Your task to perform on an android device: Clear all items from cart on amazon. Add razer blade to the cart on amazon Image 0: 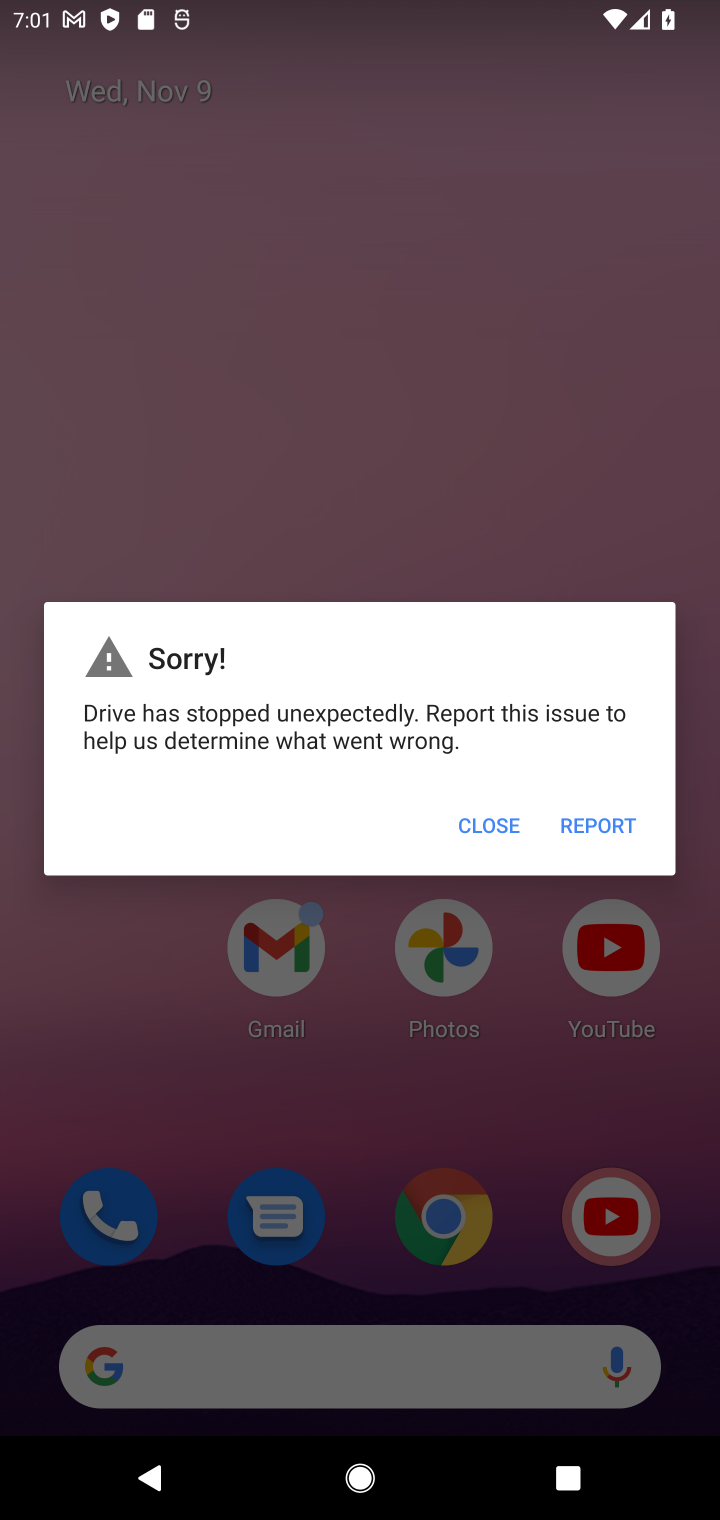
Step 0: press home button
Your task to perform on an android device: Clear all items from cart on amazon. Add razer blade to the cart on amazon Image 1: 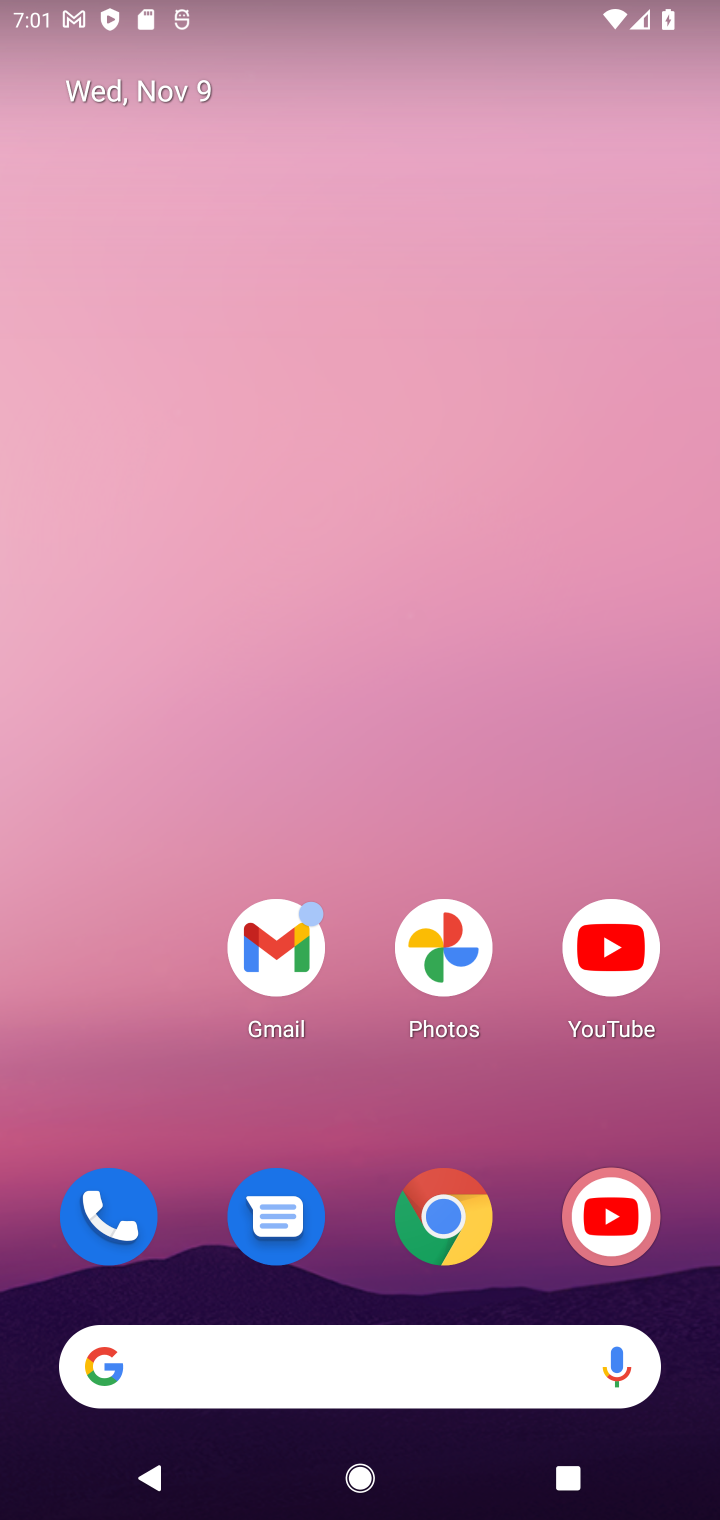
Step 1: drag from (388, 746) to (431, 117)
Your task to perform on an android device: Clear all items from cart on amazon. Add razer blade to the cart on amazon Image 2: 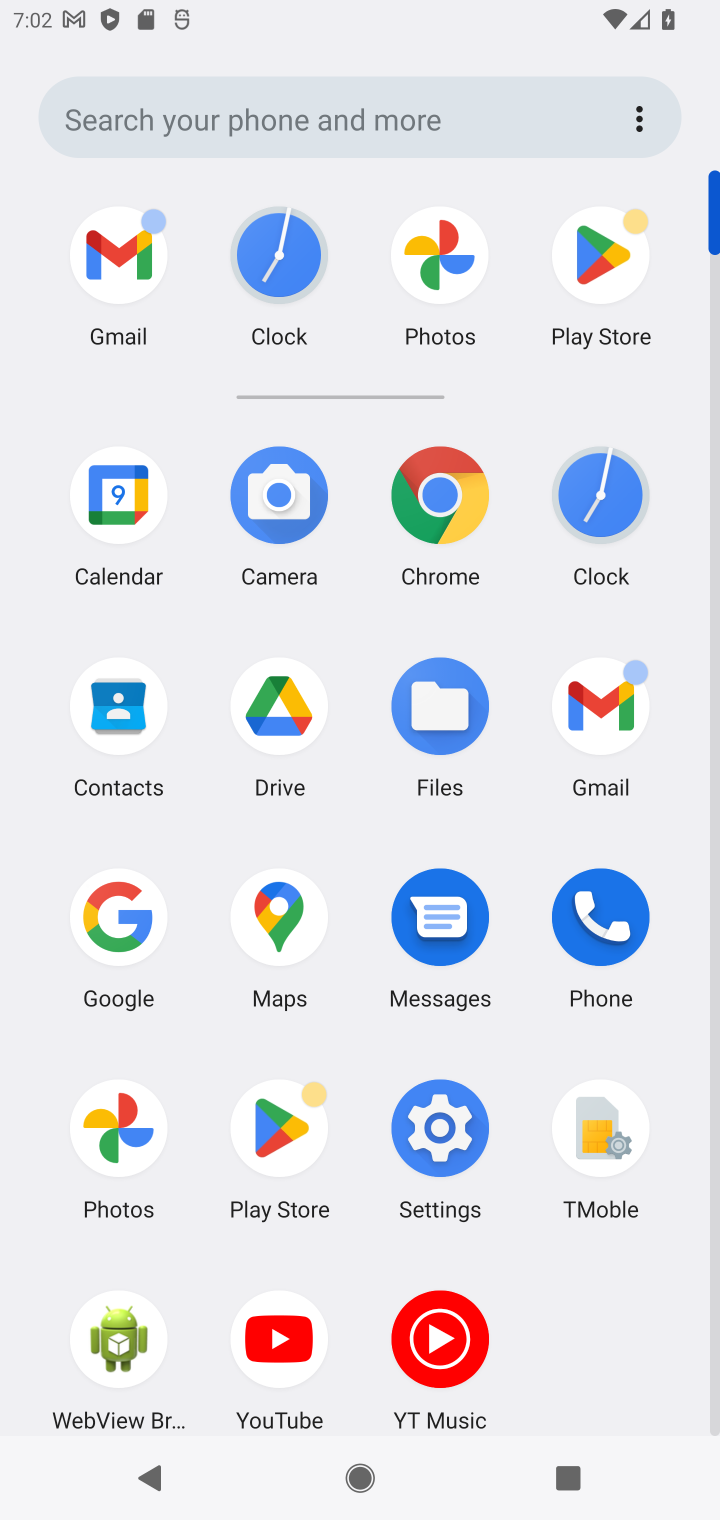
Step 2: click (434, 489)
Your task to perform on an android device: Clear all items from cart on amazon. Add razer blade to the cart on amazon Image 3: 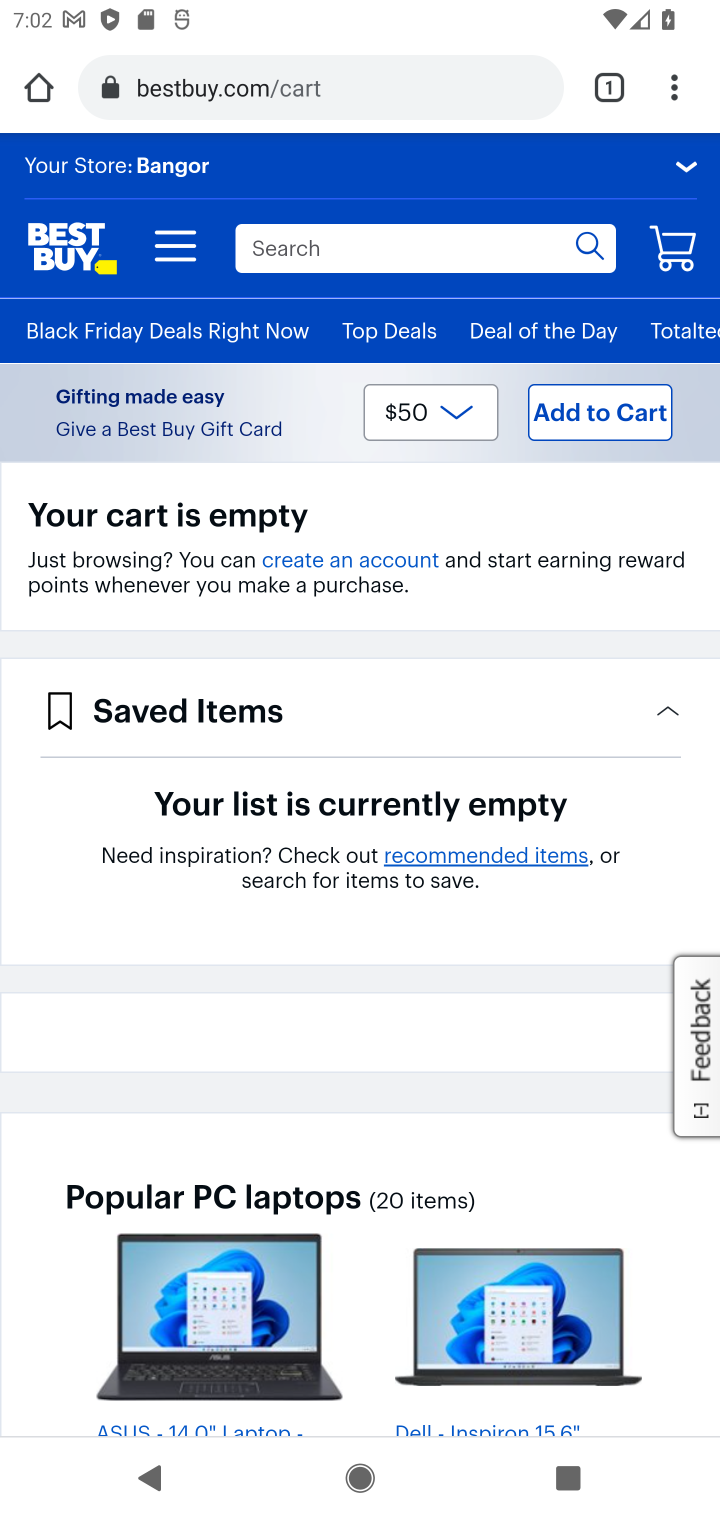
Step 3: click (440, 95)
Your task to perform on an android device: Clear all items from cart on amazon. Add razer blade to the cart on amazon Image 4: 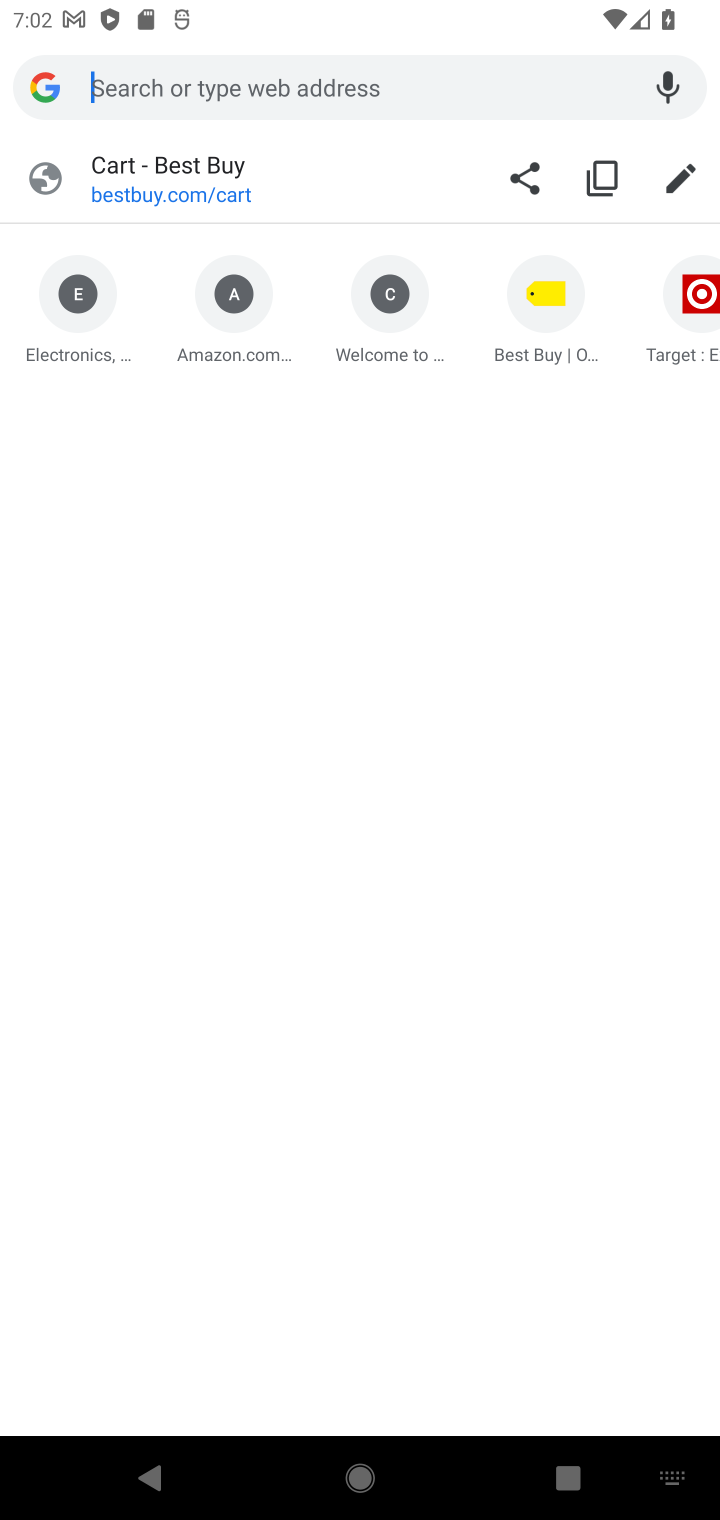
Step 4: type "amazon.com"
Your task to perform on an android device: Clear all items from cart on amazon. Add razer blade to the cart on amazon Image 5: 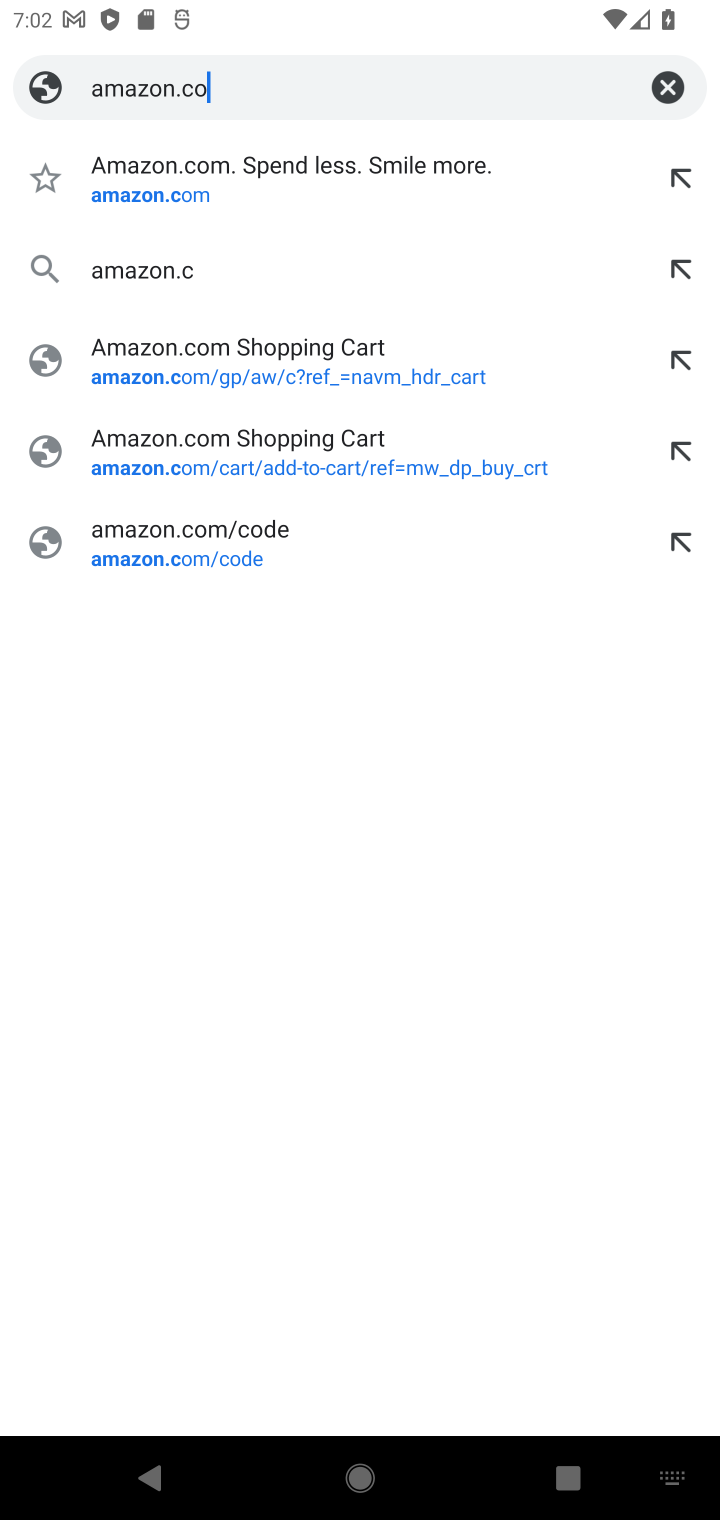
Step 5: press enter
Your task to perform on an android device: Clear all items from cart on amazon. Add razer blade to the cart on amazon Image 6: 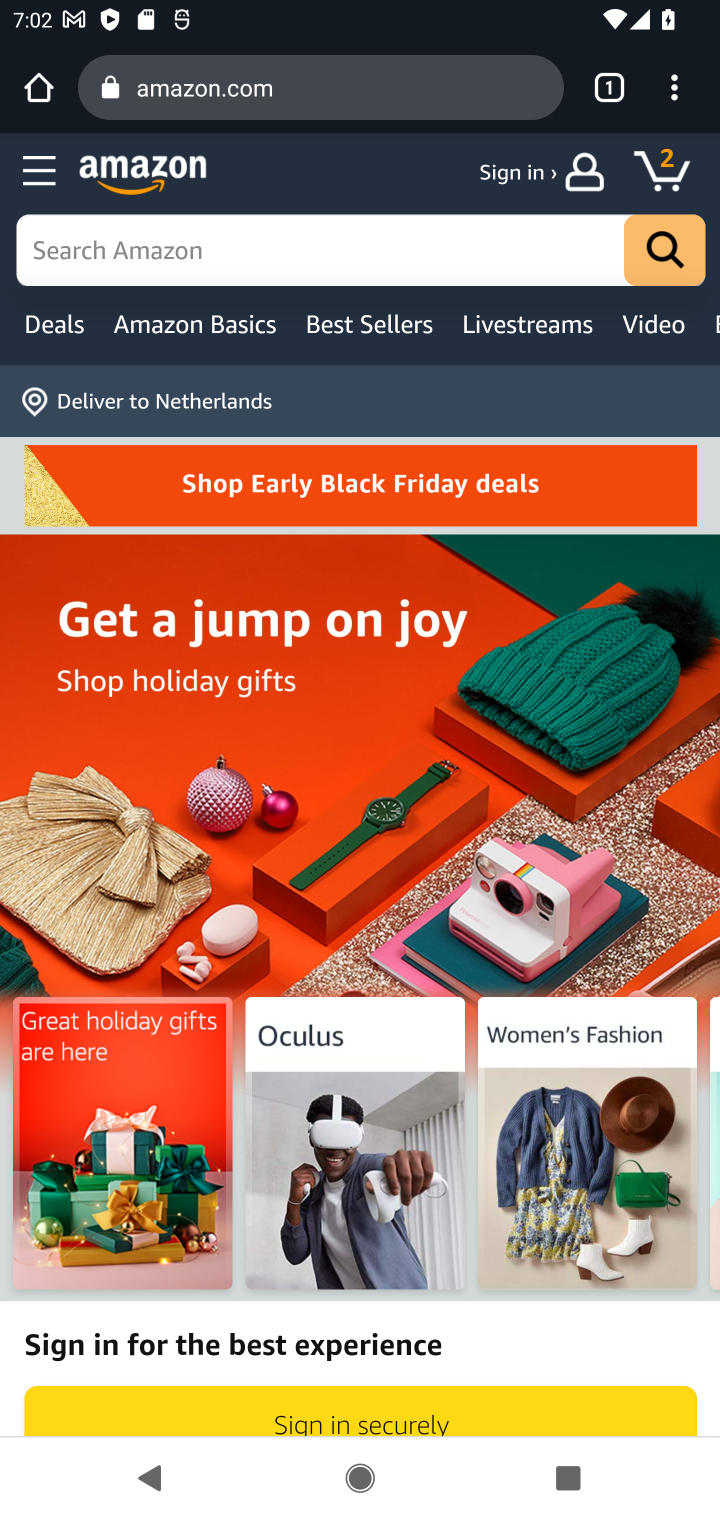
Step 6: click (668, 170)
Your task to perform on an android device: Clear all items from cart on amazon. Add razer blade to the cart on amazon Image 7: 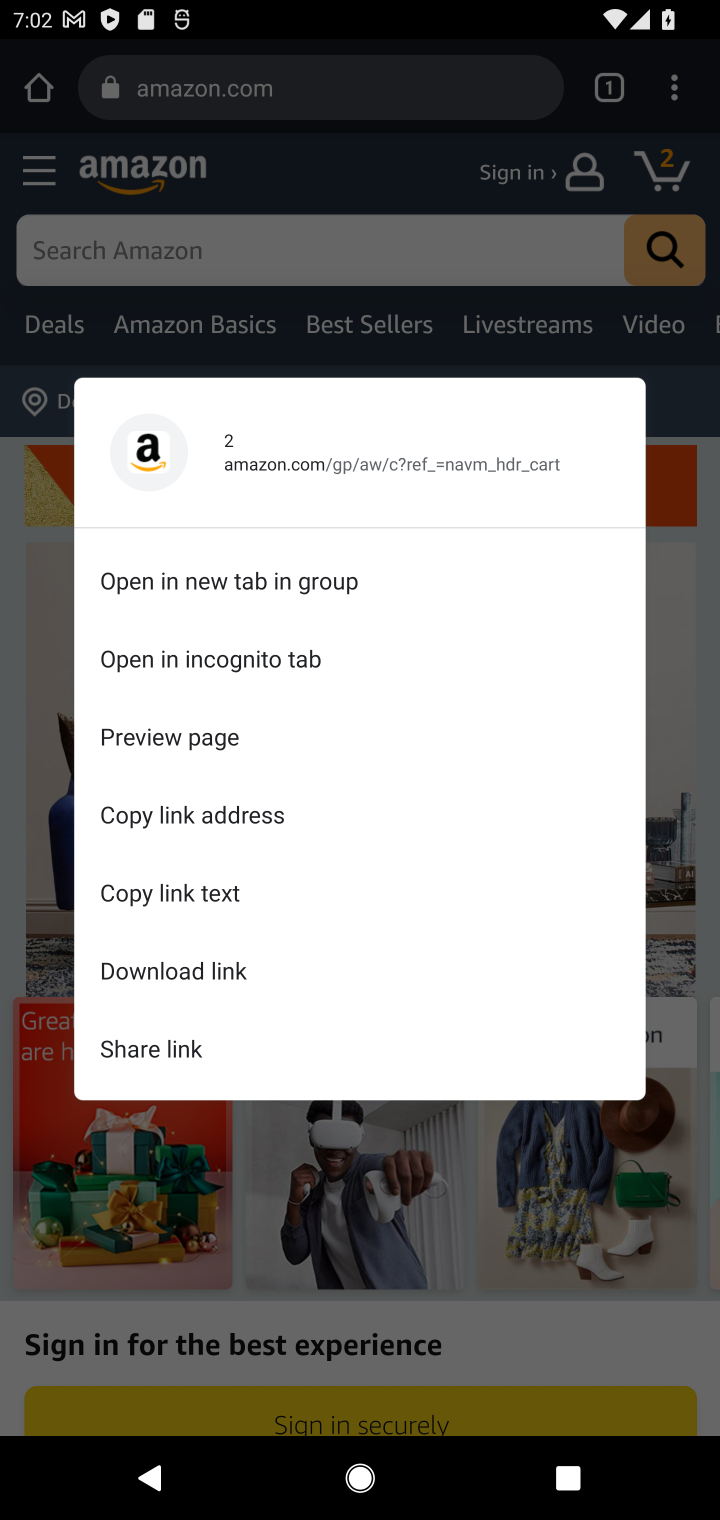
Step 7: click (684, 179)
Your task to perform on an android device: Clear all items from cart on amazon. Add razer blade to the cart on amazon Image 8: 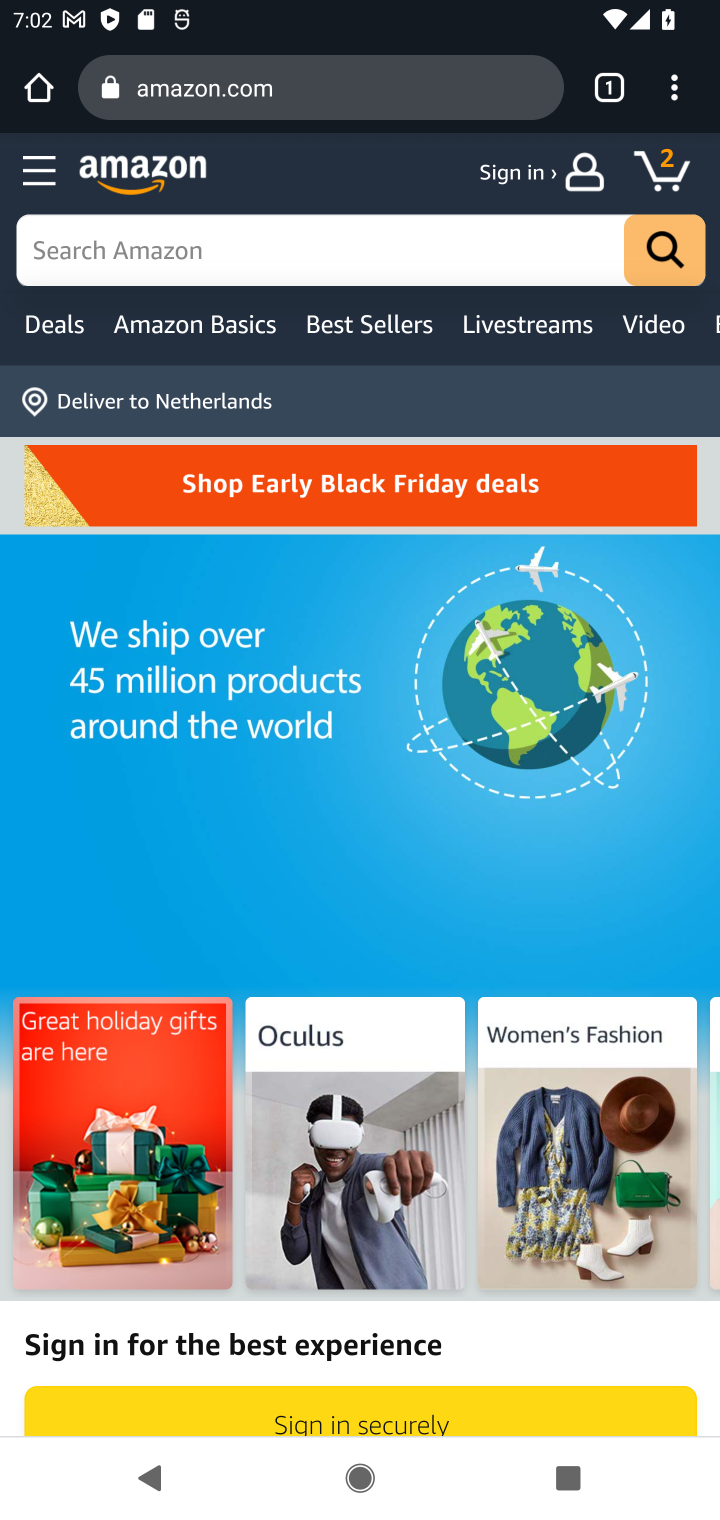
Step 8: click (684, 179)
Your task to perform on an android device: Clear all items from cart on amazon. Add razer blade to the cart on amazon Image 9: 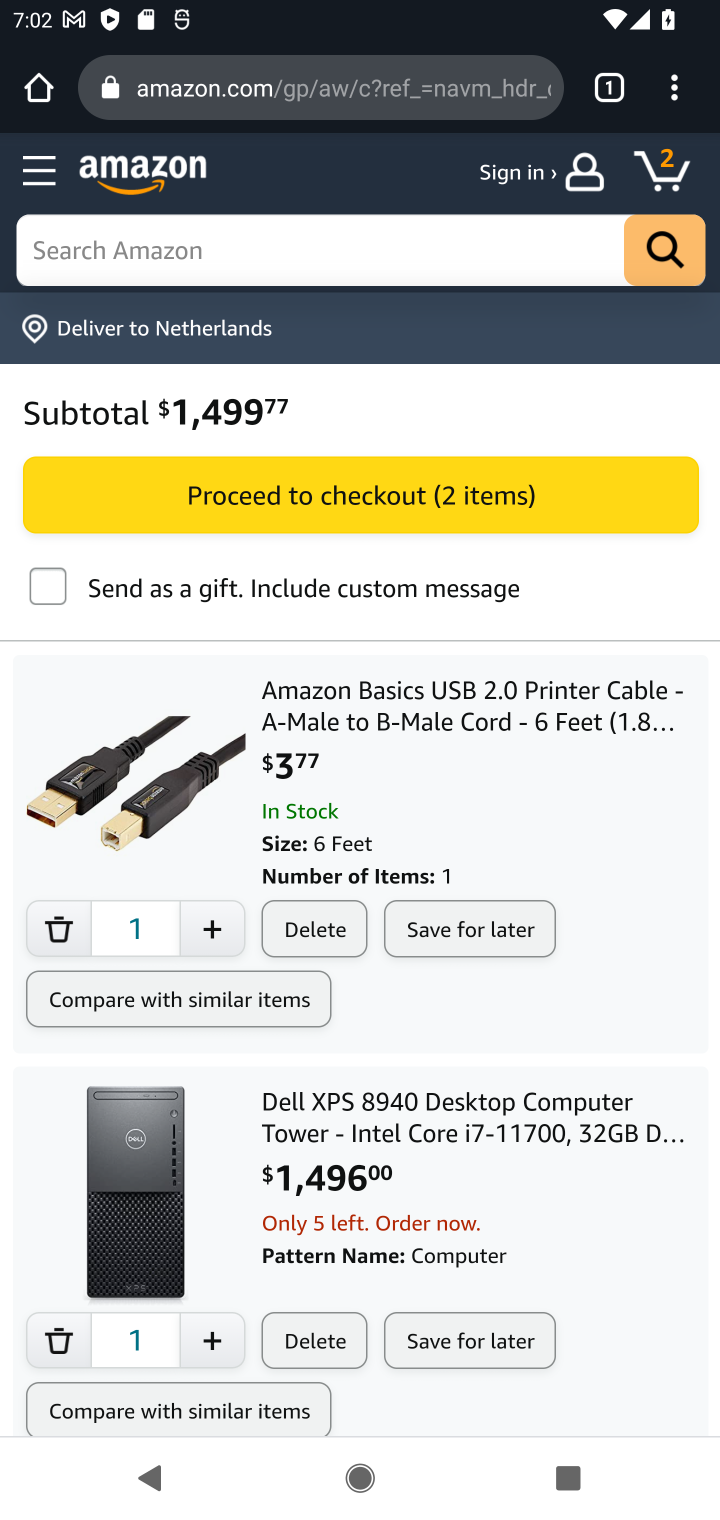
Step 9: click (287, 918)
Your task to perform on an android device: Clear all items from cart on amazon. Add razer blade to the cart on amazon Image 10: 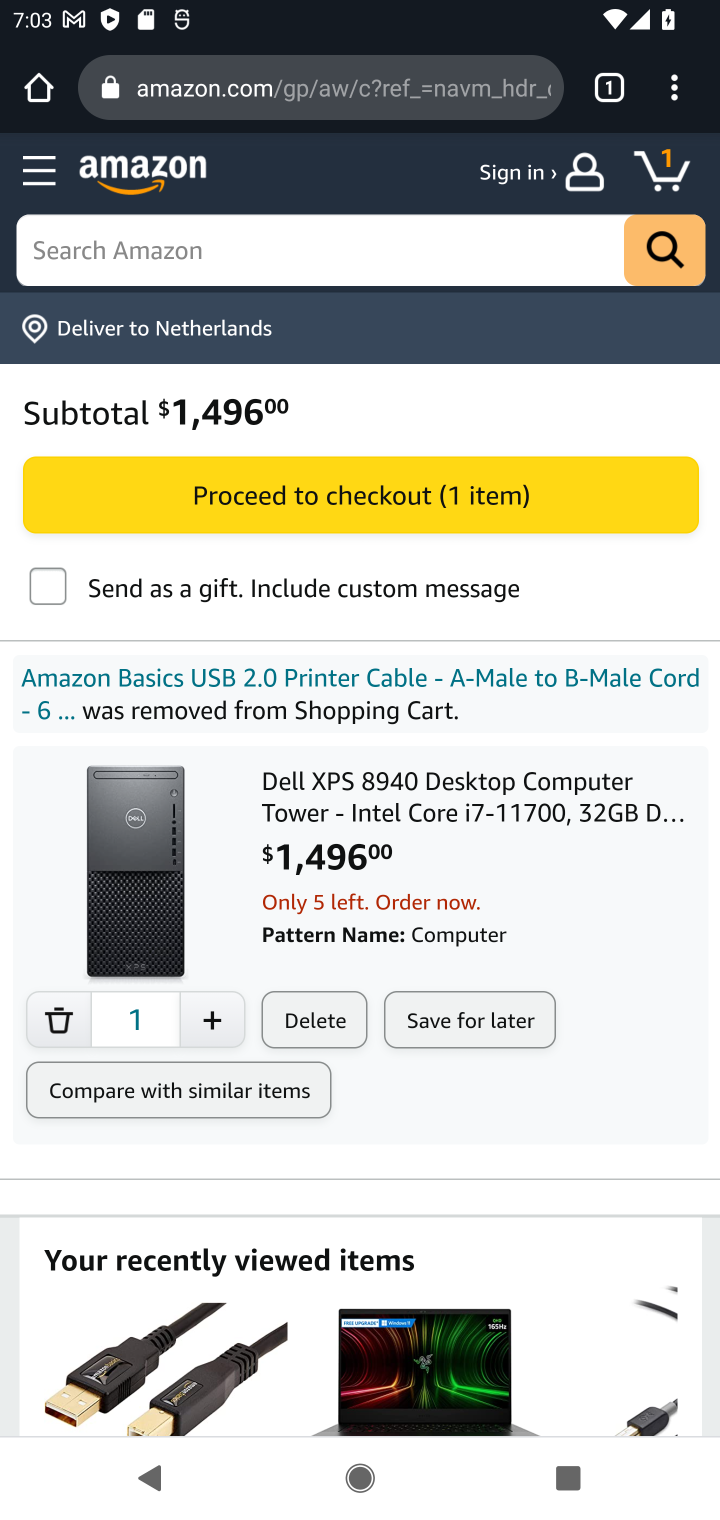
Step 10: click (305, 1031)
Your task to perform on an android device: Clear all items from cart on amazon. Add razer blade to the cart on amazon Image 11: 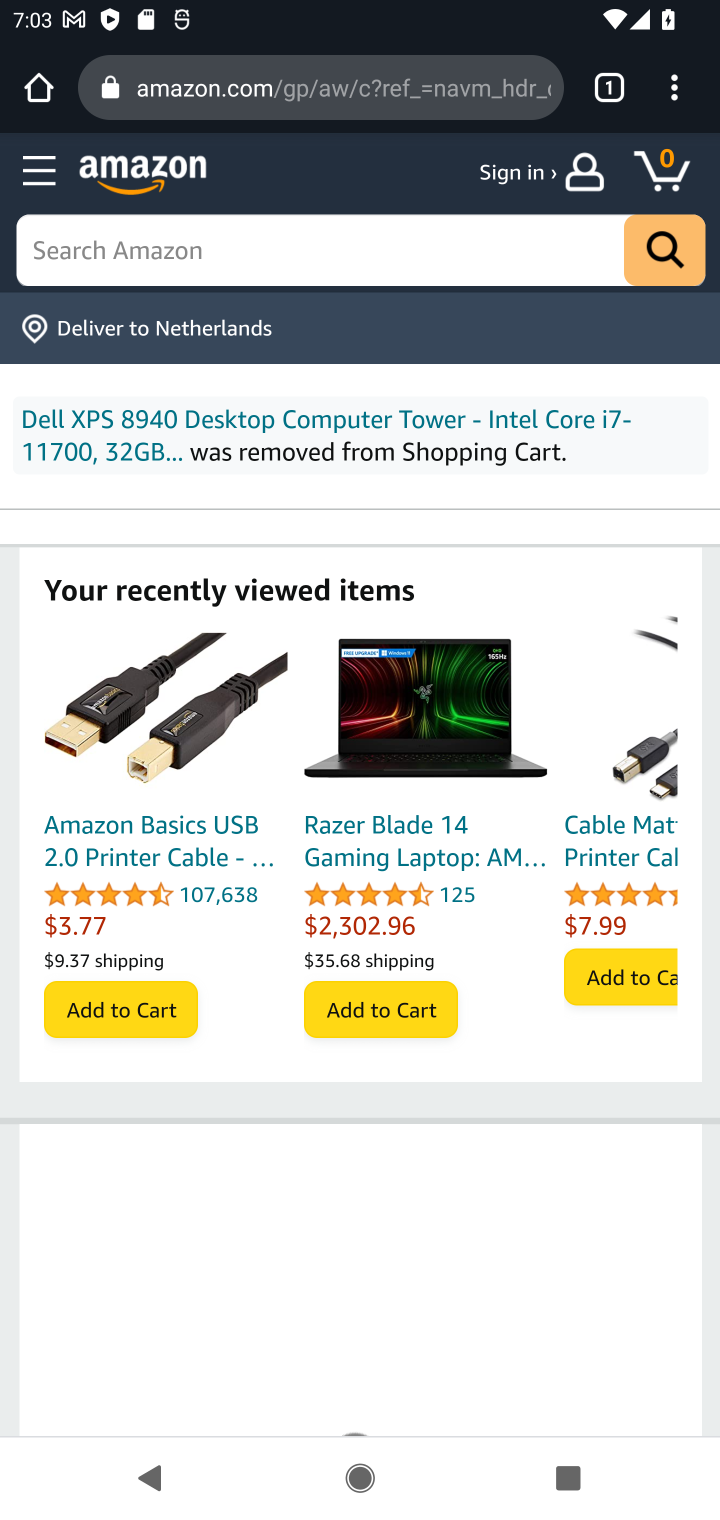
Step 11: click (443, 278)
Your task to perform on an android device: Clear all items from cart on amazon. Add razer blade to the cart on amazon Image 12: 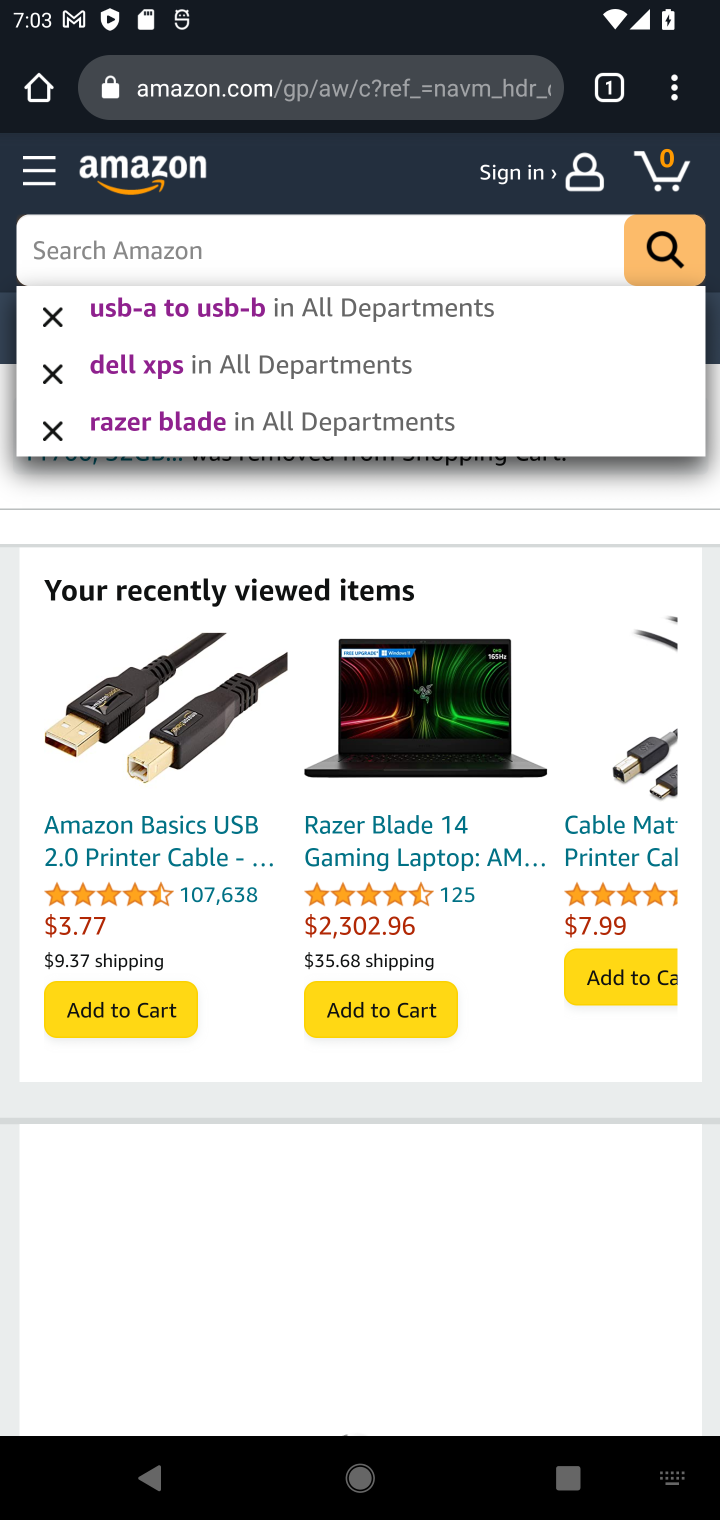
Step 12: type "razer blade"
Your task to perform on an android device: Clear all items from cart on amazon. Add razer blade to the cart on amazon Image 13: 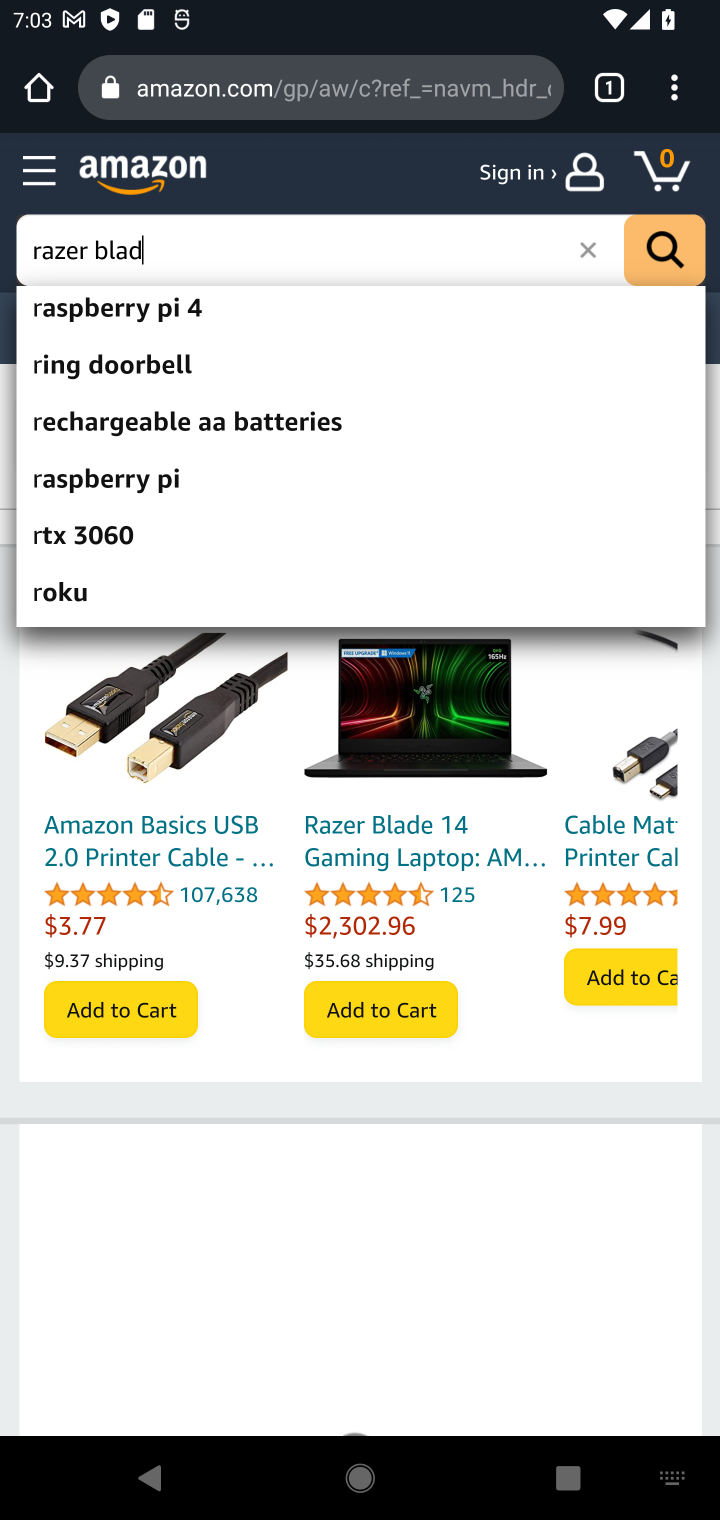
Step 13: press enter
Your task to perform on an android device: Clear all items from cart on amazon. Add razer blade to the cart on amazon Image 14: 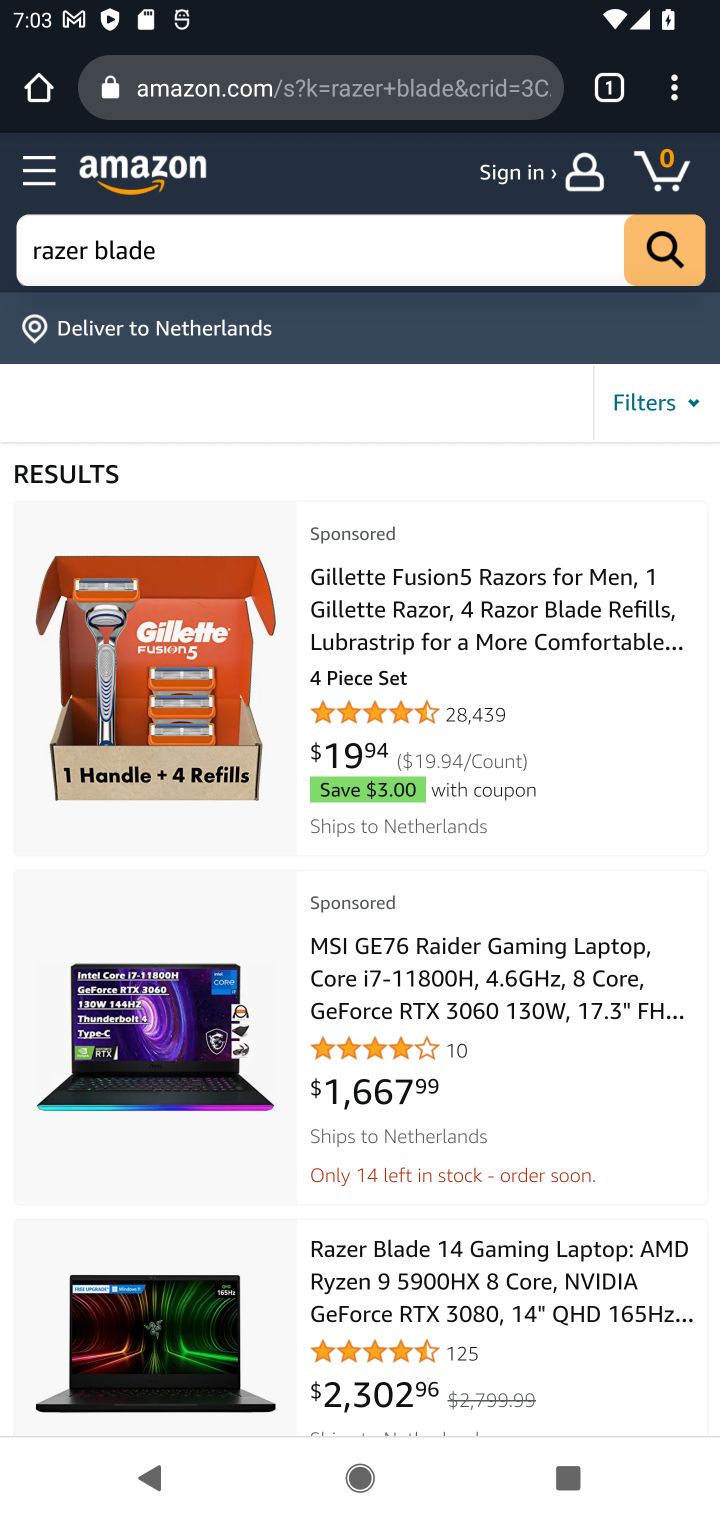
Step 14: drag from (386, 1127) to (356, 430)
Your task to perform on an android device: Clear all items from cart on amazon. Add razer blade to the cart on amazon Image 15: 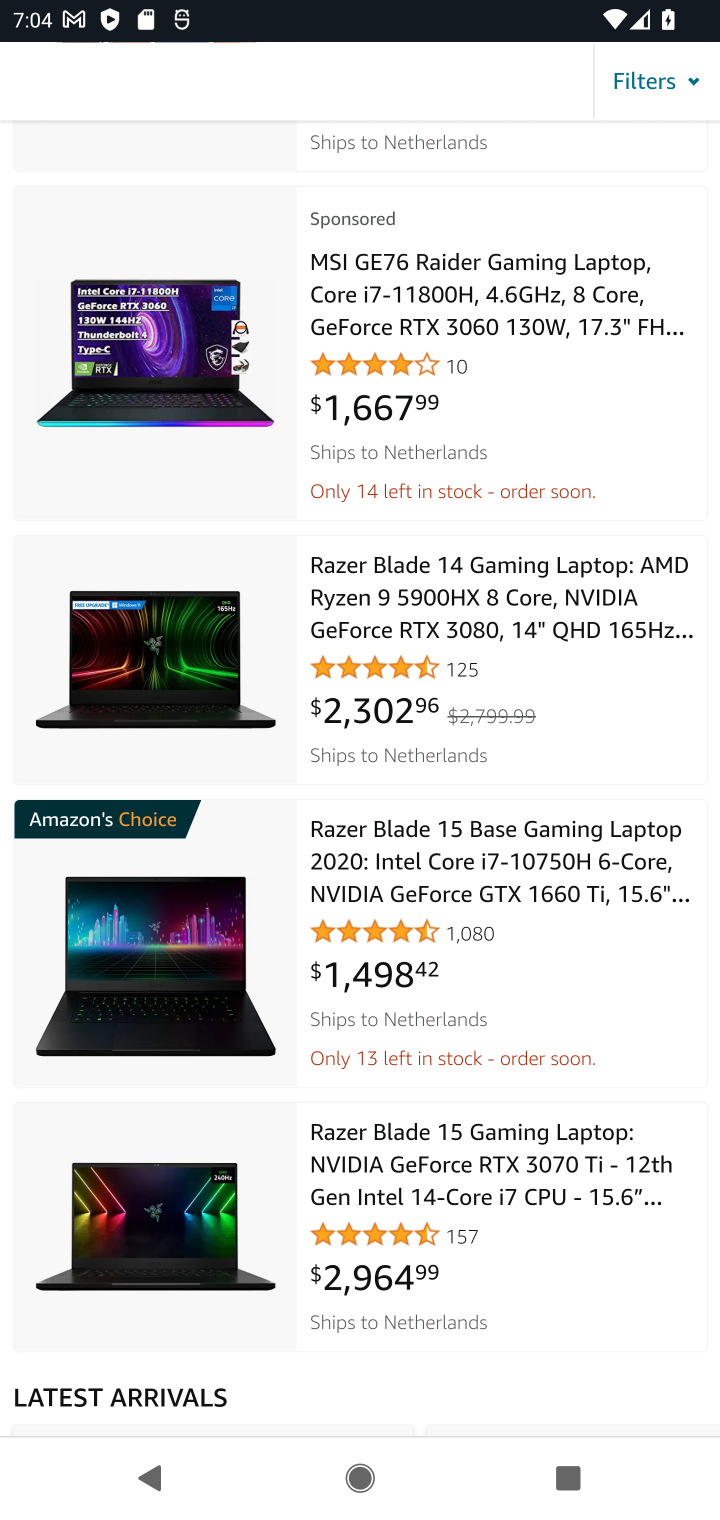
Step 15: click (486, 596)
Your task to perform on an android device: Clear all items from cart on amazon. Add razer blade to the cart on amazon Image 16: 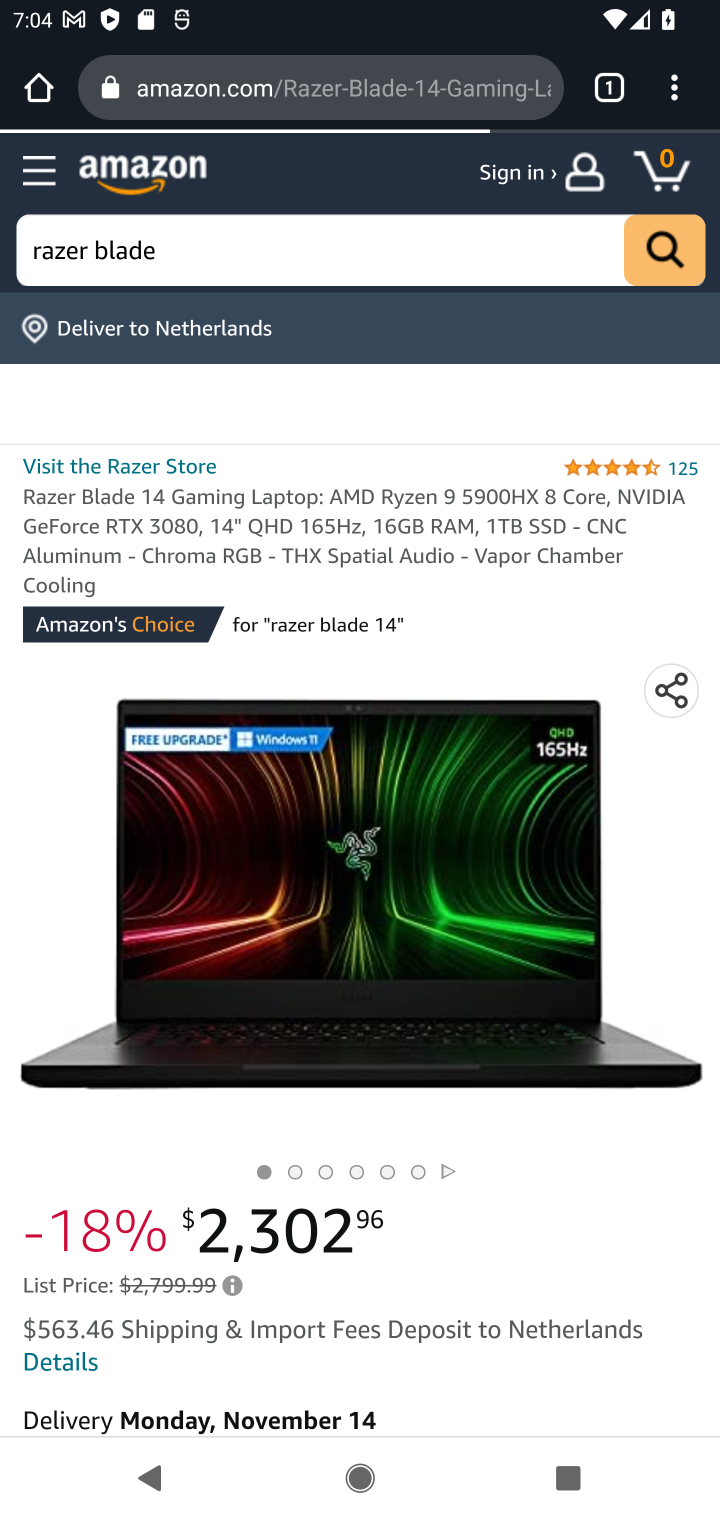
Step 16: drag from (423, 1022) to (444, 289)
Your task to perform on an android device: Clear all items from cart on amazon. Add razer blade to the cart on amazon Image 17: 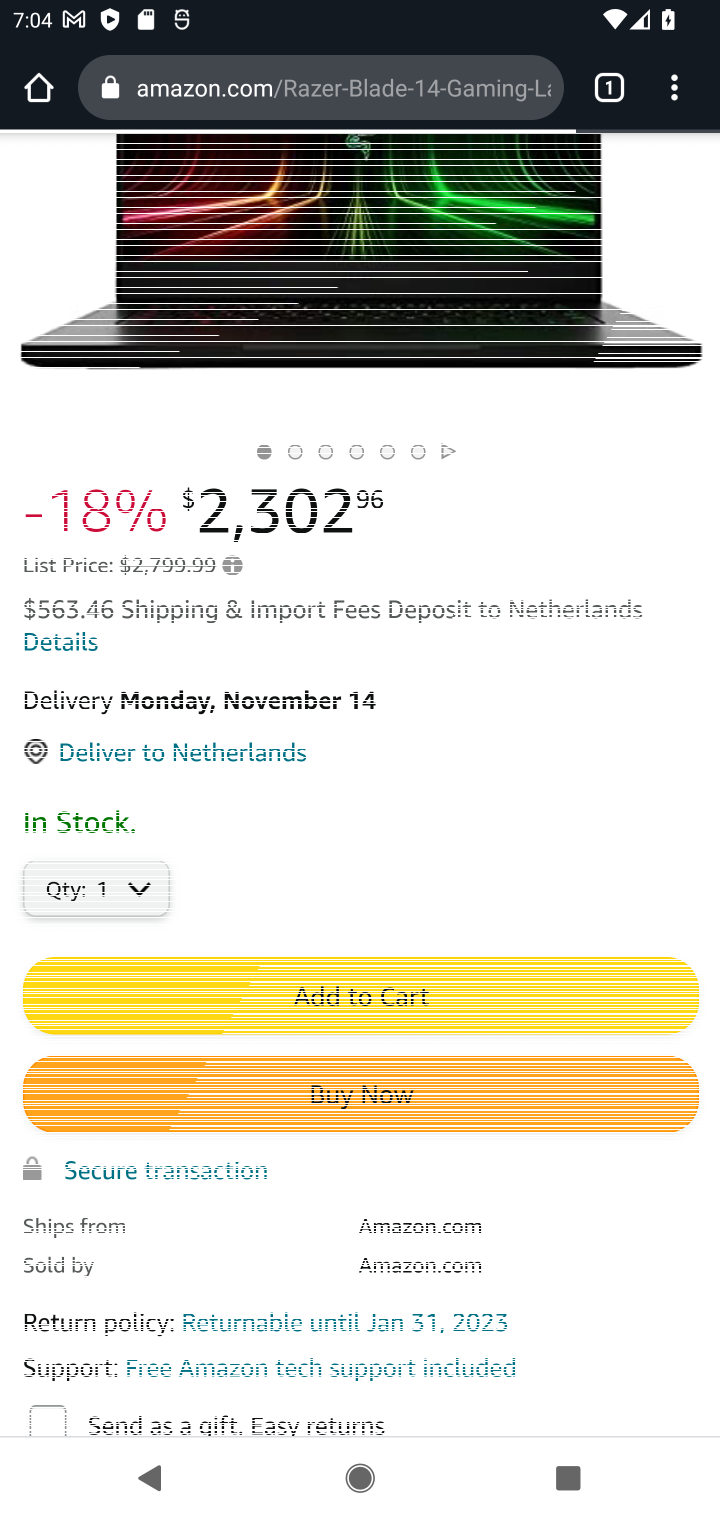
Step 17: click (457, 987)
Your task to perform on an android device: Clear all items from cart on amazon. Add razer blade to the cart on amazon Image 18: 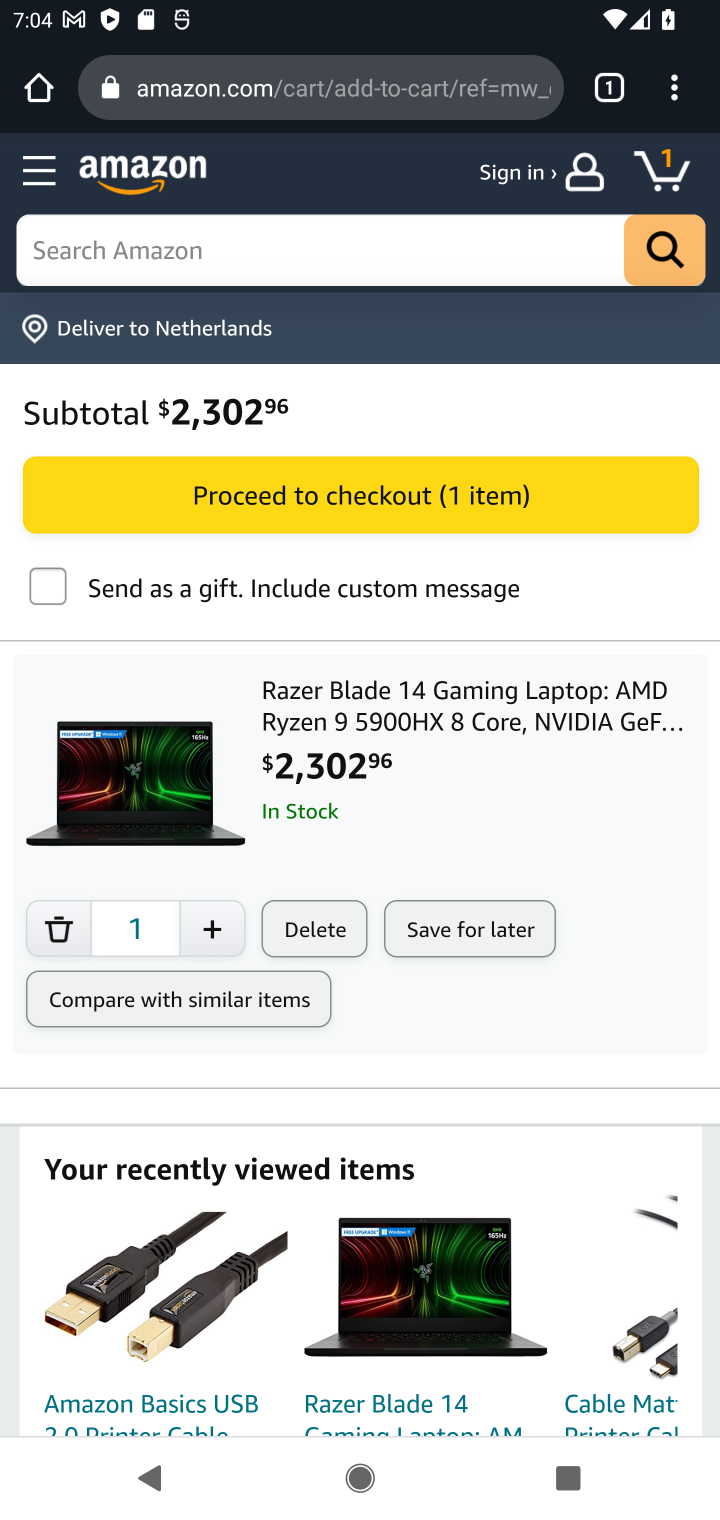
Step 18: task complete